Your task to perform on an android device: Go to network settings Image 0: 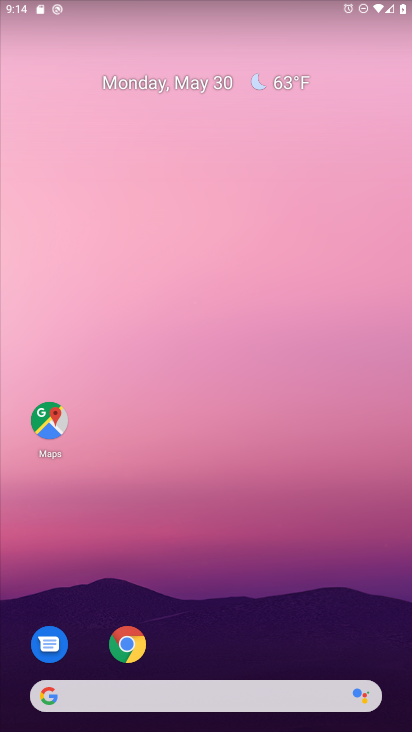
Step 0: drag from (218, 617) to (226, 79)
Your task to perform on an android device: Go to network settings Image 1: 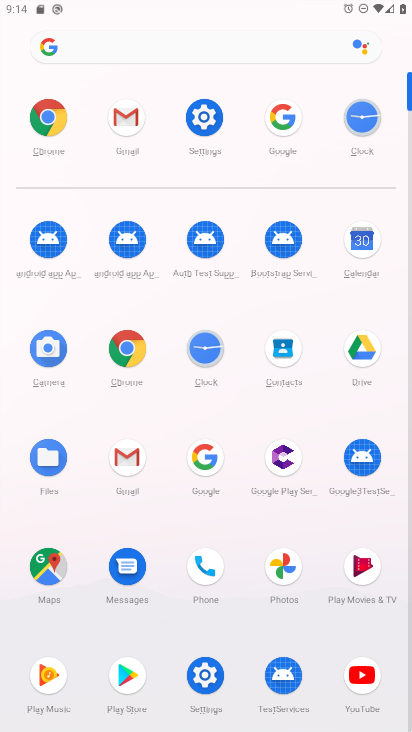
Step 1: click (203, 118)
Your task to perform on an android device: Go to network settings Image 2: 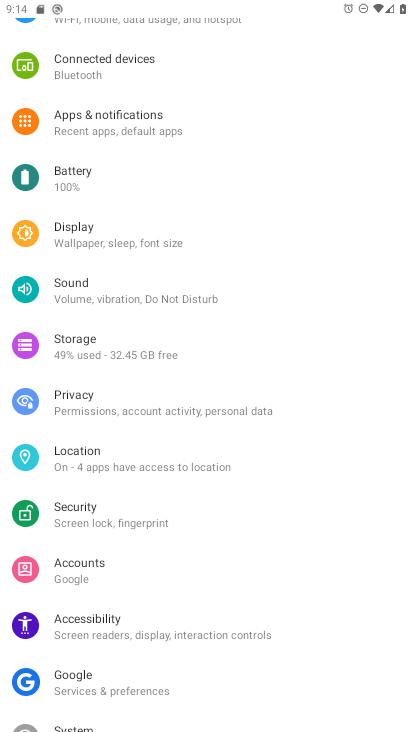
Step 2: drag from (118, 80) to (120, 400)
Your task to perform on an android device: Go to network settings Image 3: 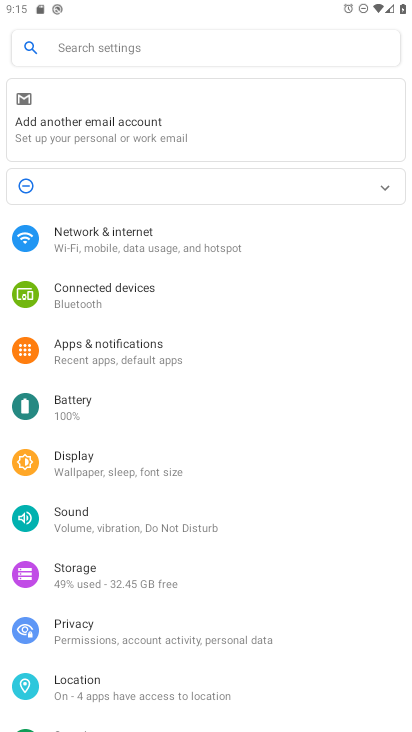
Step 3: click (127, 243)
Your task to perform on an android device: Go to network settings Image 4: 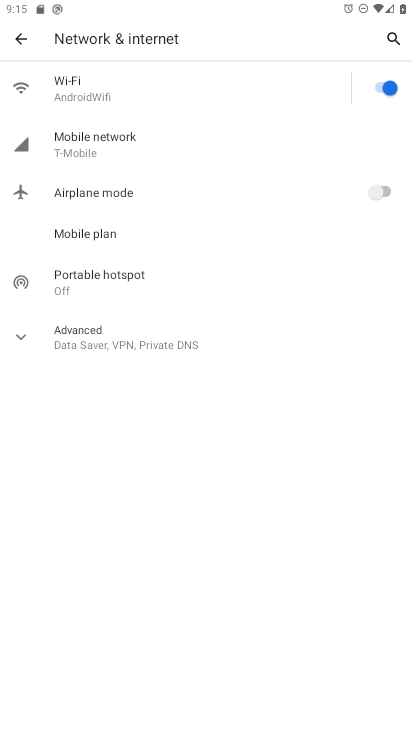
Step 4: click (114, 138)
Your task to perform on an android device: Go to network settings Image 5: 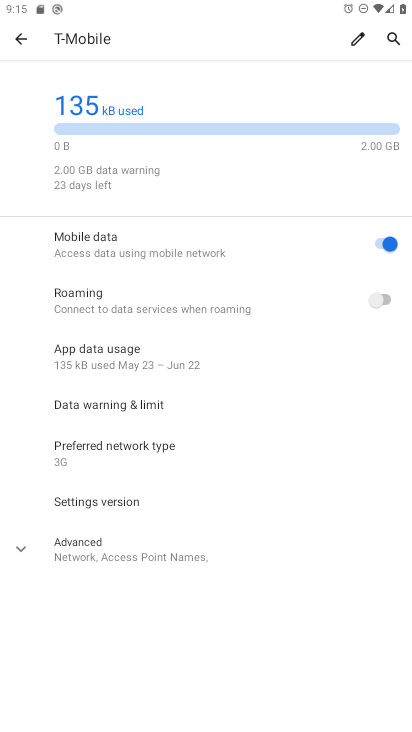
Step 5: task complete